Your task to perform on an android device: What's on my calendar tomorrow? Image 0: 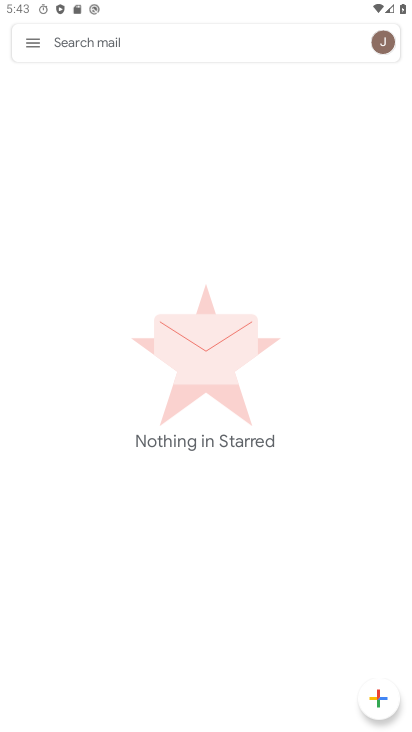
Step 0: press home button
Your task to perform on an android device: What's on my calendar tomorrow? Image 1: 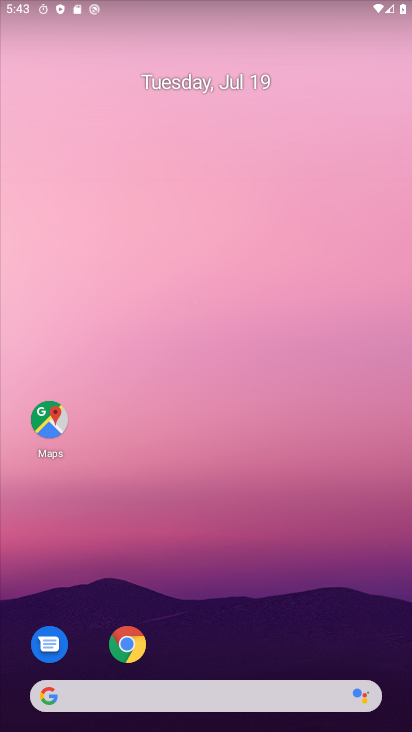
Step 1: drag from (232, 512) to (215, 140)
Your task to perform on an android device: What's on my calendar tomorrow? Image 2: 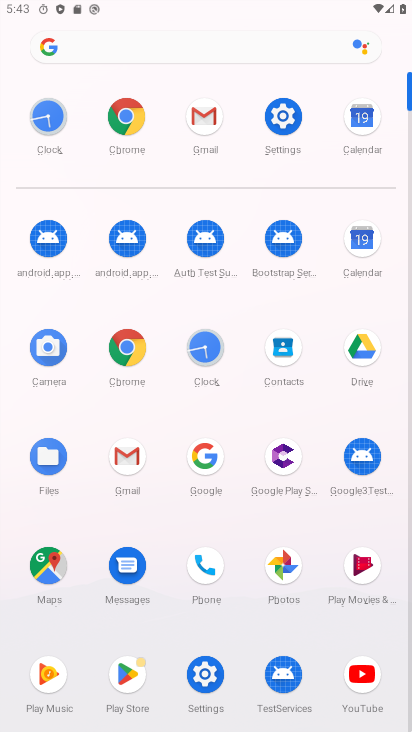
Step 2: click (349, 243)
Your task to perform on an android device: What's on my calendar tomorrow? Image 3: 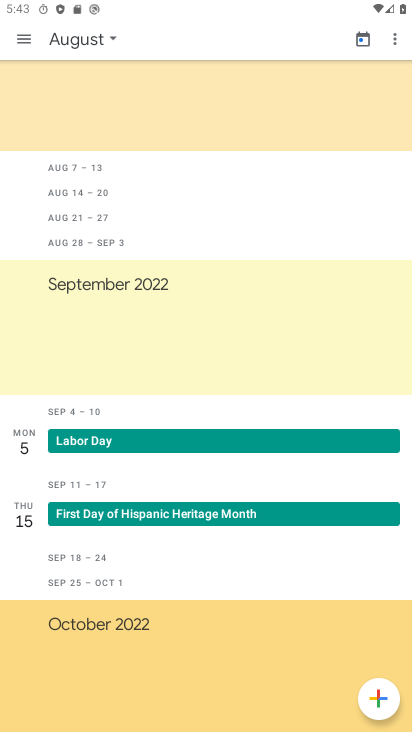
Step 3: task complete